Your task to perform on an android device: check data usage Image 0: 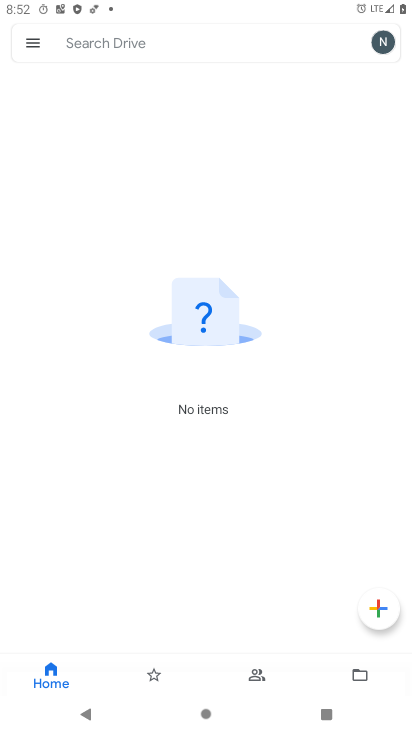
Step 0: press home button
Your task to perform on an android device: check data usage Image 1: 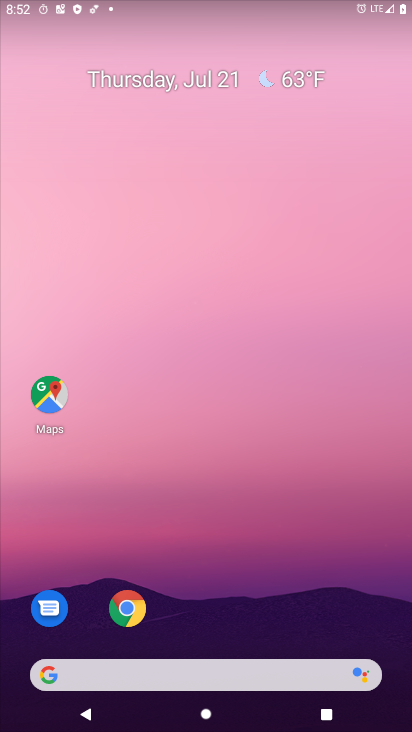
Step 1: drag from (401, 8) to (356, 693)
Your task to perform on an android device: check data usage Image 2: 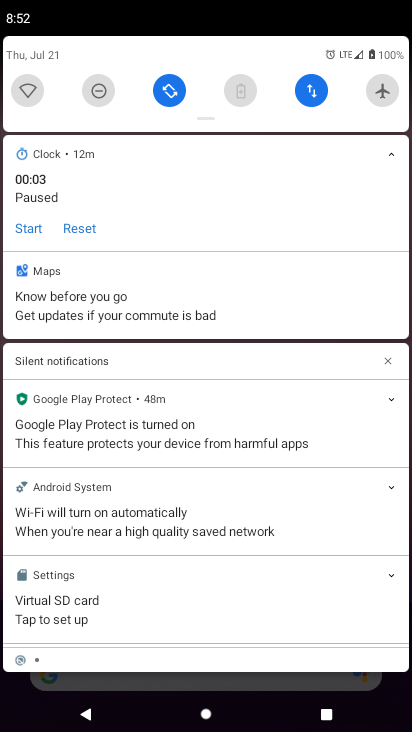
Step 2: click (322, 92)
Your task to perform on an android device: check data usage Image 3: 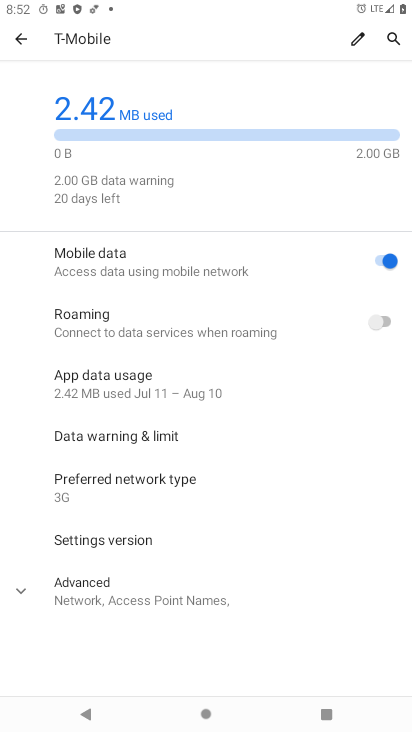
Step 3: task complete